Your task to perform on an android device: Do I have any events today? Image 0: 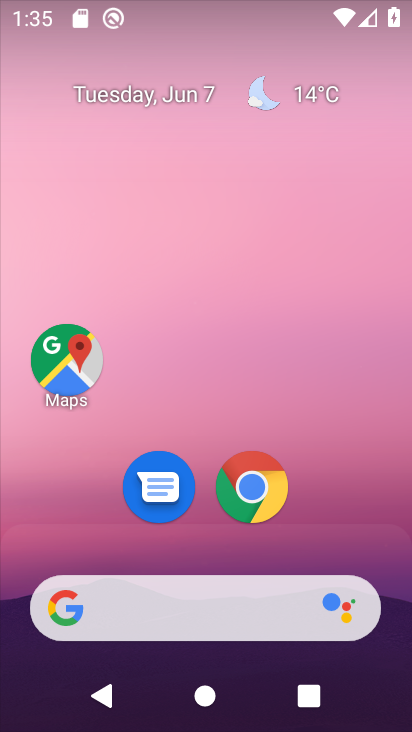
Step 0: drag from (208, 586) to (153, 16)
Your task to perform on an android device: Do I have any events today? Image 1: 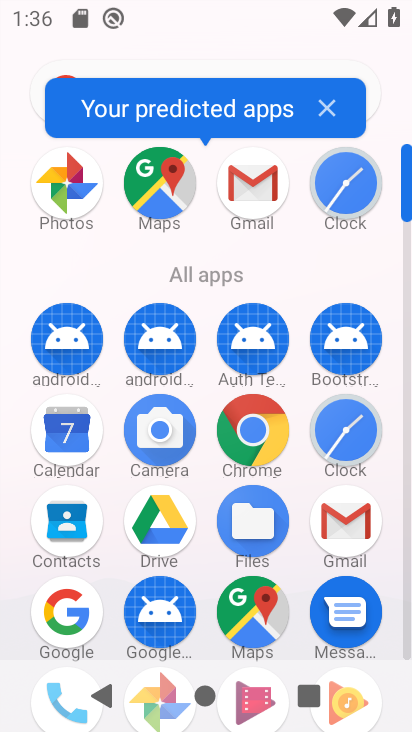
Step 1: click (72, 441)
Your task to perform on an android device: Do I have any events today? Image 2: 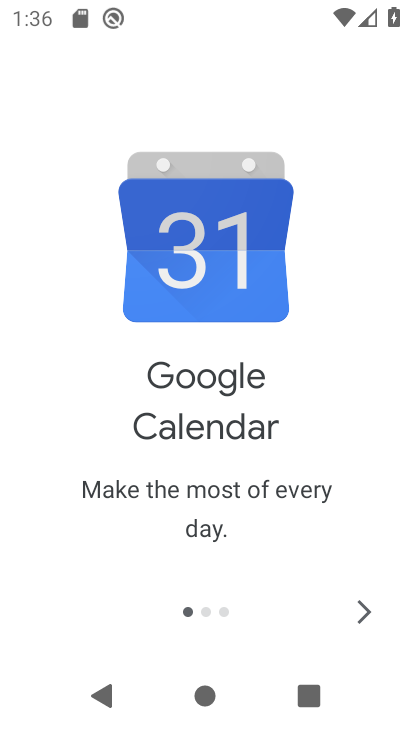
Step 2: click (366, 603)
Your task to perform on an android device: Do I have any events today? Image 3: 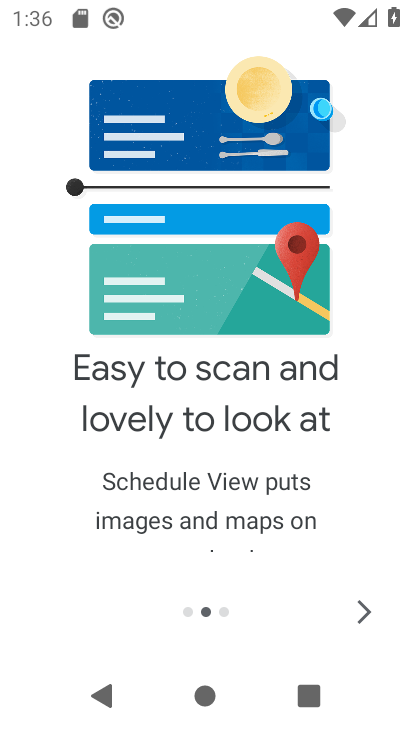
Step 3: click (363, 602)
Your task to perform on an android device: Do I have any events today? Image 4: 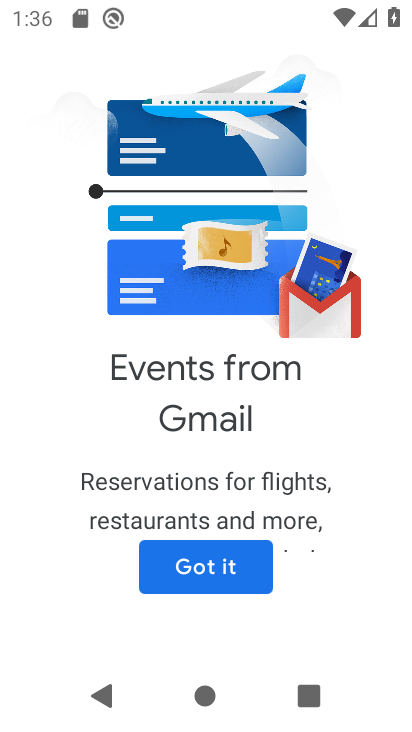
Step 4: click (362, 602)
Your task to perform on an android device: Do I have any events today? Image 5: 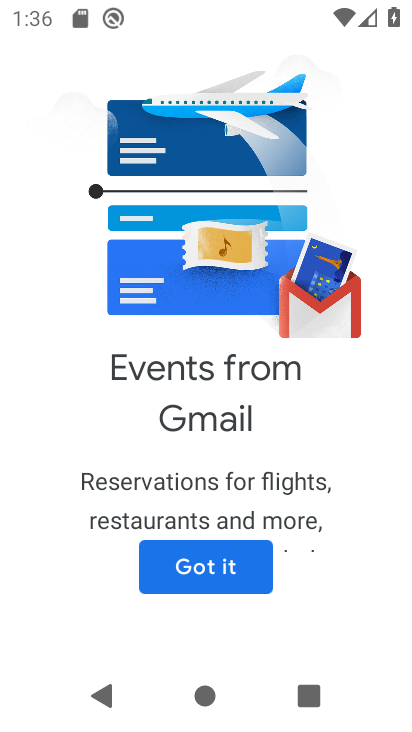
Step 5: click (246, 589)
Your task to perform on an android device: Do I have any events today? Image 6: 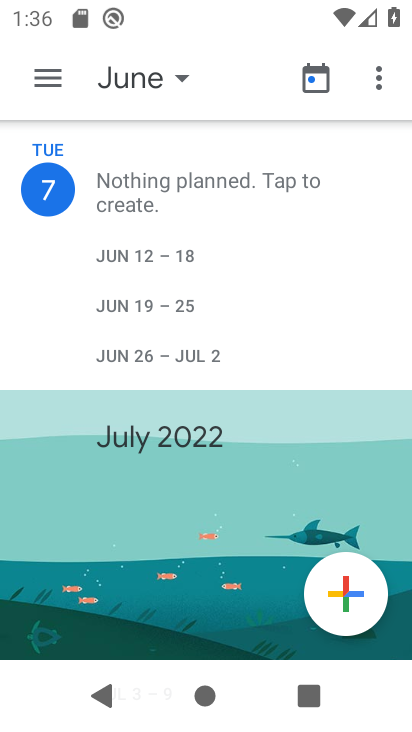
Step 6: click (46, 185)
Your task to perform on an android device: Do I have any events today? Image 7: 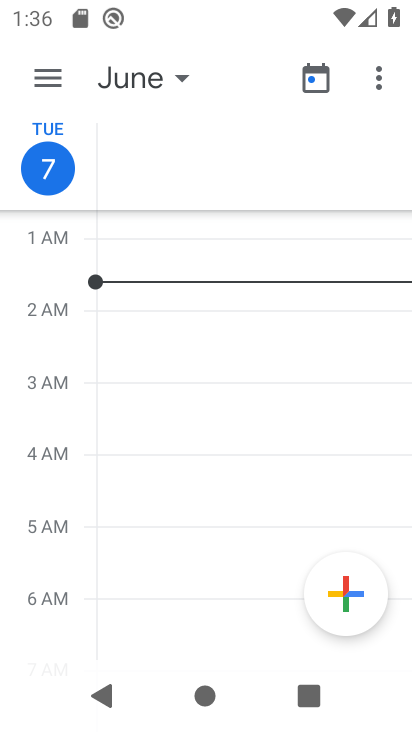
Step 7: task complete